Your task to perform on an android device: choose inbox layout in the gmail app Image 0: 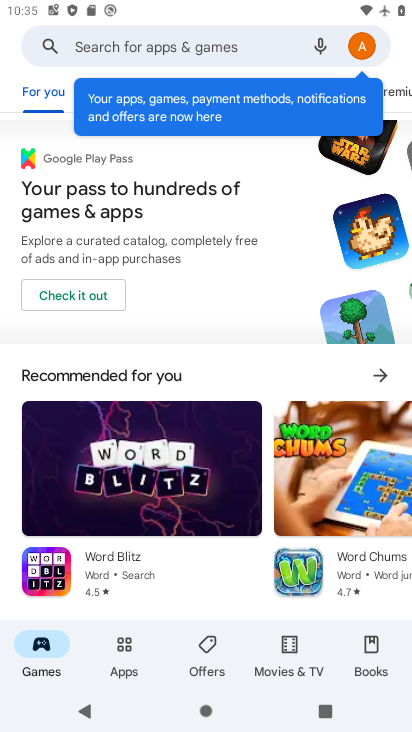
Step 0: press home button
Your task to perform on an android device: choose inbox layout in the gmail app Image 1: 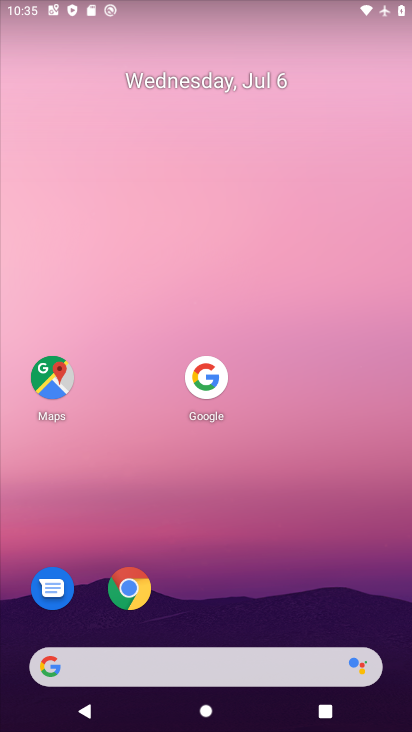
Step 1: drag from (175, 666) to (292, 205)
Your task to perform on an android device: choose inbox layout in the gmail app Image 2: 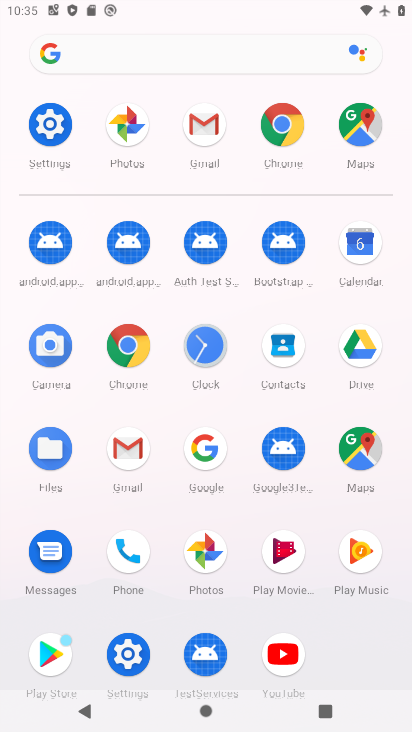
Step 2: click (209, 136)
Your task to perform on an android device: choose inbox layout in the gmail app Image 3: 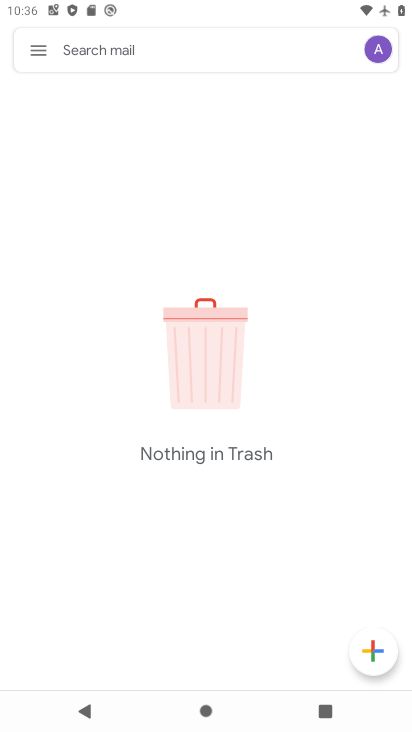
Step 3: click (36, 53)
Your task to perform on an android device: choose inbox layout in the gmail app Image 4: 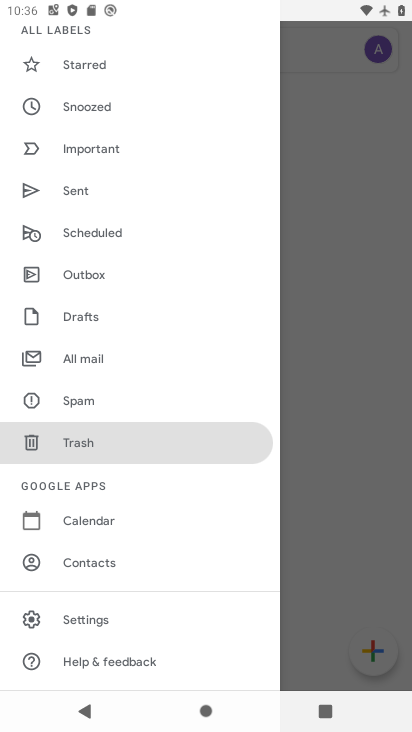
Step 4: click (89, 617)
Your task to perform on an android device: choose inbox layout in the gmail app Image 5: 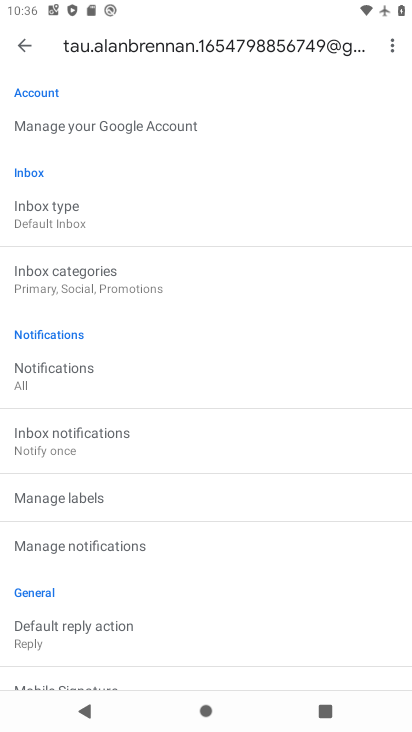
Step 5: click (47, 213)
Your task to perform on an android device: choose inbox layout in the gmail app Image 6: 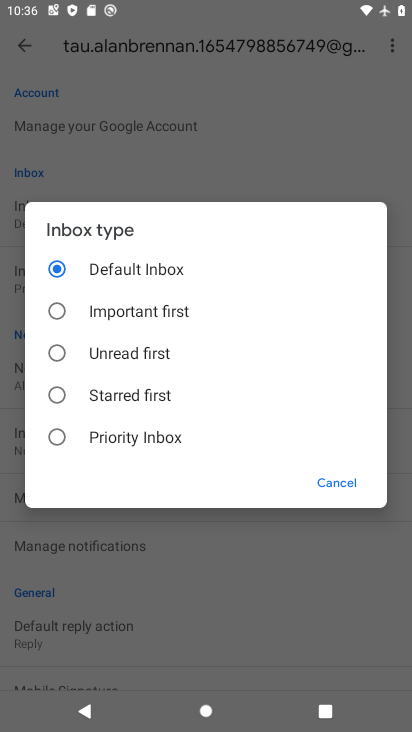
Step 6: click (60, 311)
Your task to perform on an android device: choose inbox layout in the gmail app Image 7: 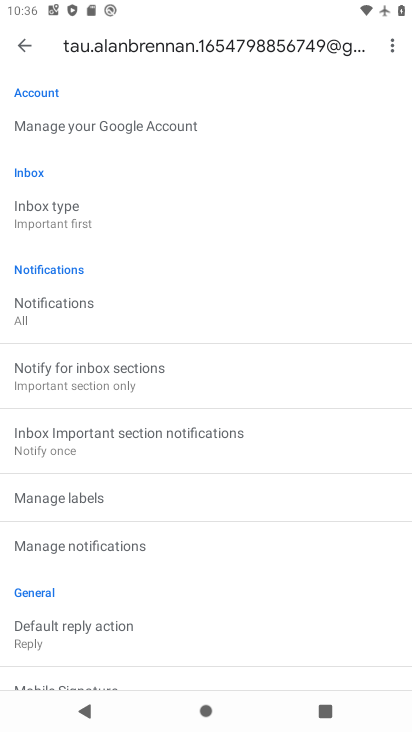
Step 7: task complete